Your task to perform on an android device: toggle data saver in the chrome app Image 0: 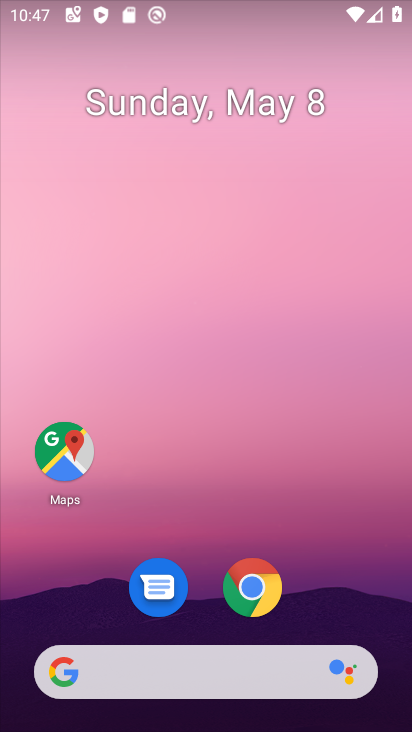
Step 0: drag from (319, 562) to (240, 1)
Your task to perform on an android device: toggle data saver in the chrome app Image 1: 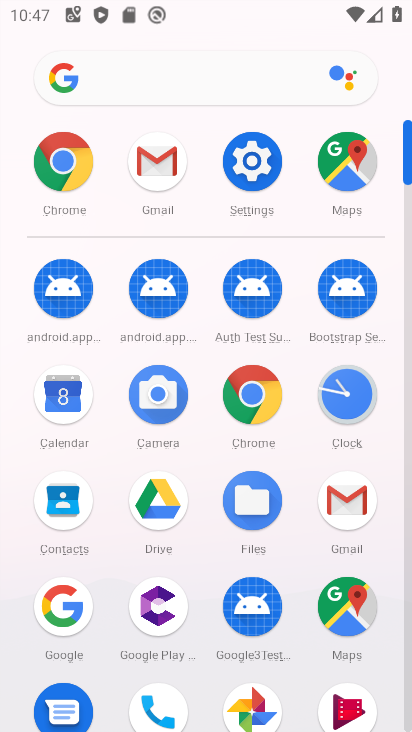
Step 1: click (66, 161)
Your task to perform on an android device: toggle data saver in the chrome app Image 2: 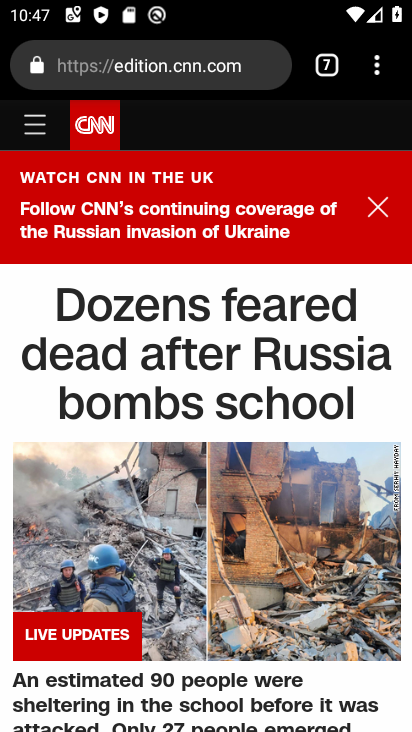
Step 2: drag from (373, 60) to (153, 637)
Your task to perform on an android device: toggle data saver in the chrome app Image 3: 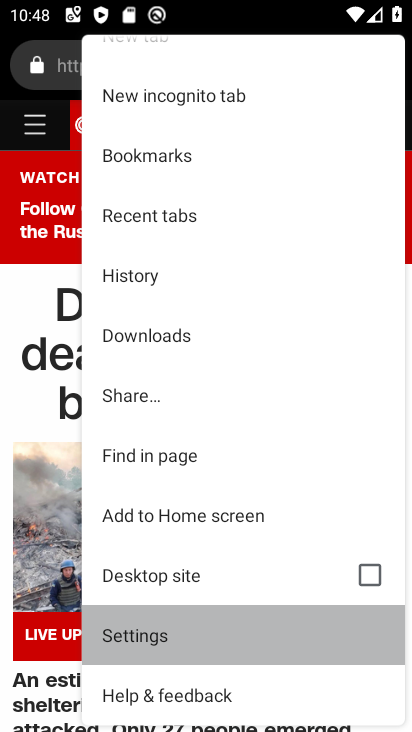
Step 3: click (156, 626)
Your task to perform on an android device: toggle data saver in the chrome app Image 4: 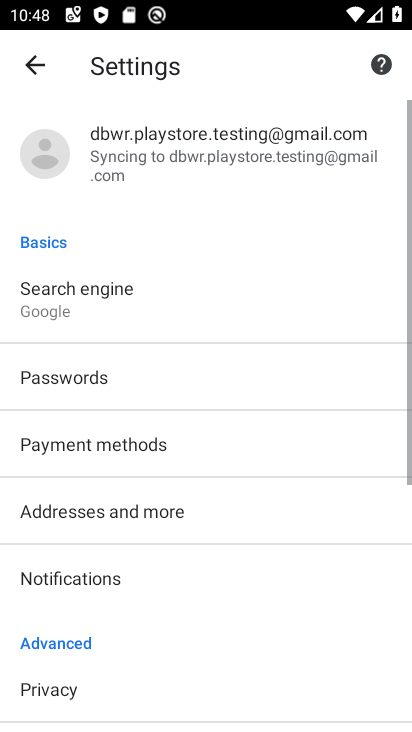
Step 4: click (156, 624)
Your task to perform on an android device: toggle data saver in the chrome app Image 5: 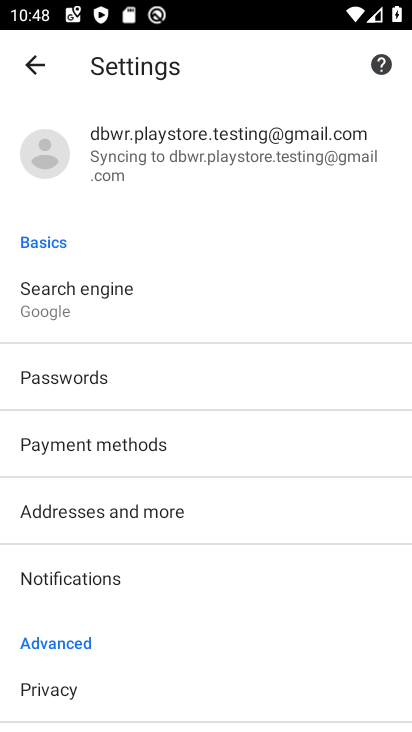
Step 5: drag from (174, 588) to (150, 75)
Your task to perform on an android device: toggle data saver in the chrome app Image 6: 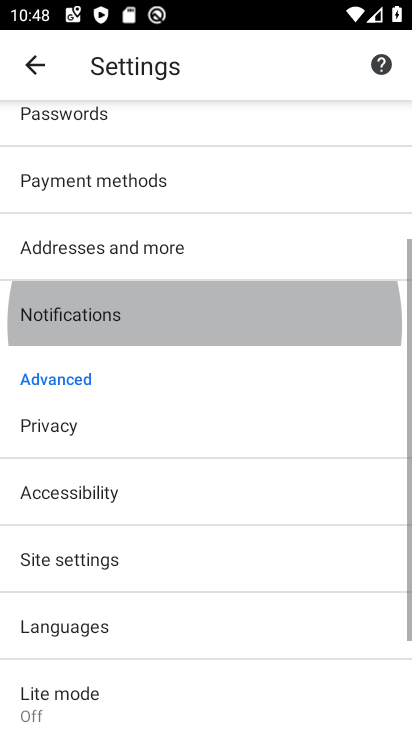
Step 6: drag from (109, 621) to (13, 29)
Your task to perform on an android device: toggle data saver in the chrome app Image 7: 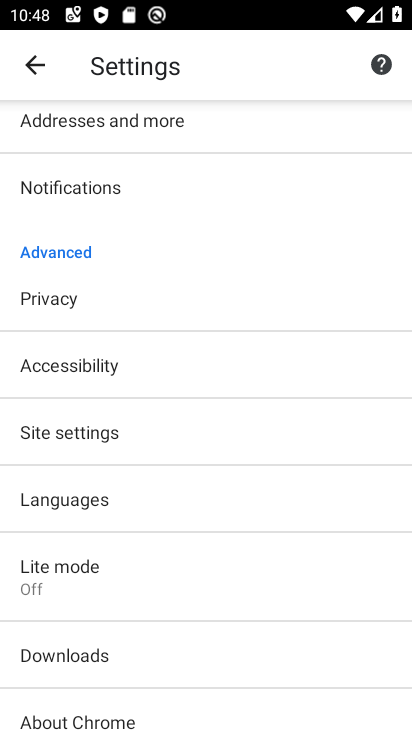
Step 7: click (120, 0)
Your task to perform on an android device: toggle data saver in the chrome app Image 8: 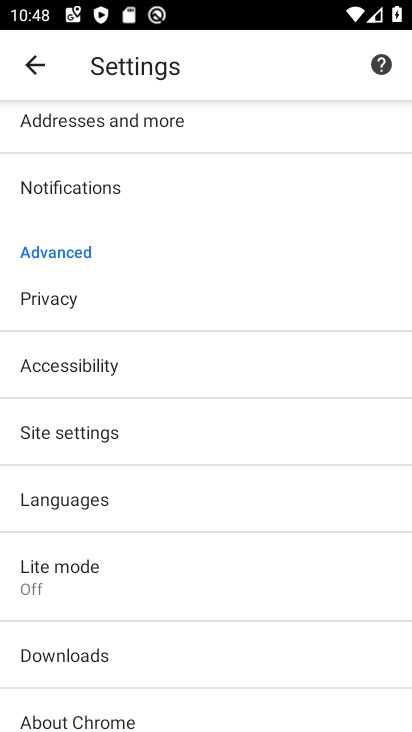
Step 8: click (44, 569)
Your task to perform on an android device: toggle data saver in the chrome app Image 9: 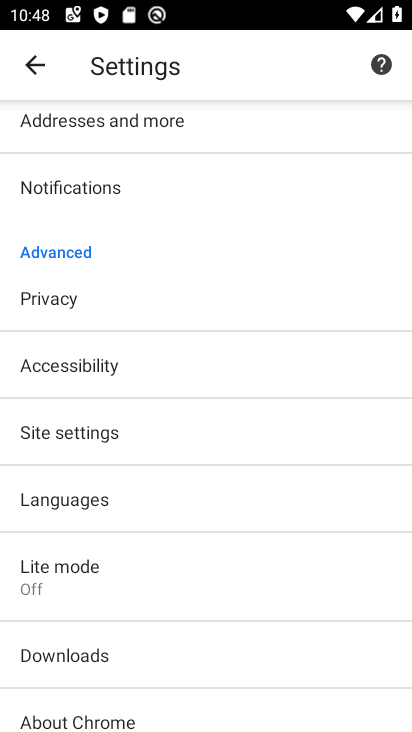
Step 9: click (45, 571)
Your task to perform on an android device: toggle data saver in the chrome app Image 10: 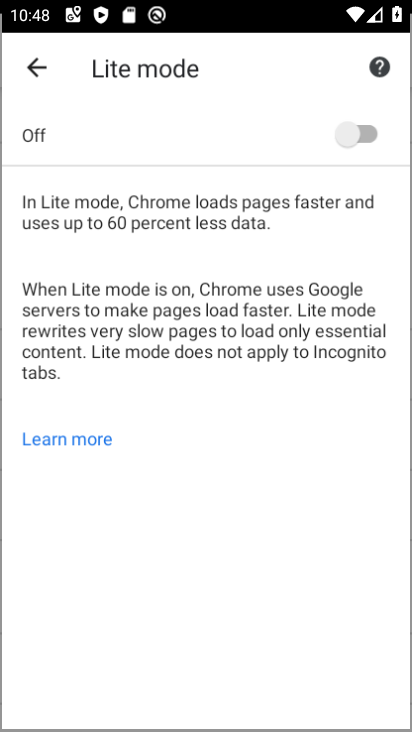
Step 10: click (45, 571)
Your task to perform on an android device: toggle data saver in the chrome app Image 11: 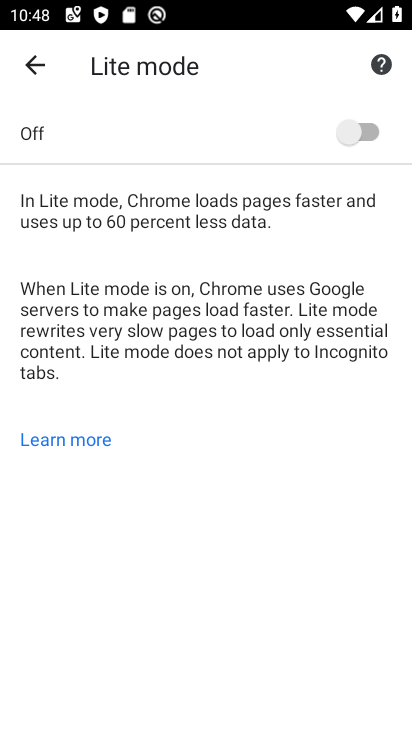
Step 11: click (361, 133)
Your task to perform on an android device: toggle data saver in the chrome app Image 12: 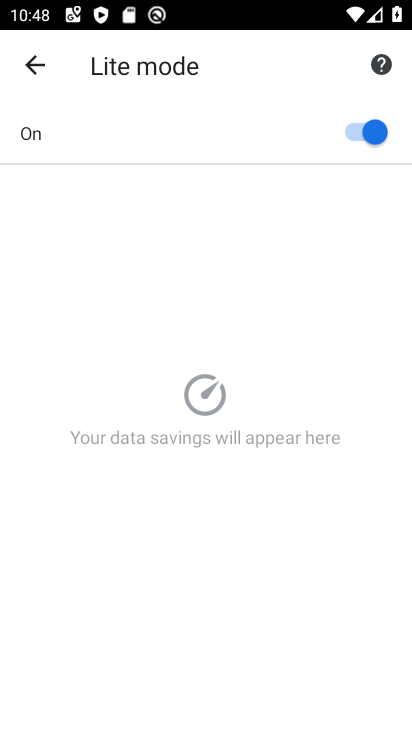
Step 12: task complete